Your task to perform on an android device: install app "Google Chrome" Image 0: 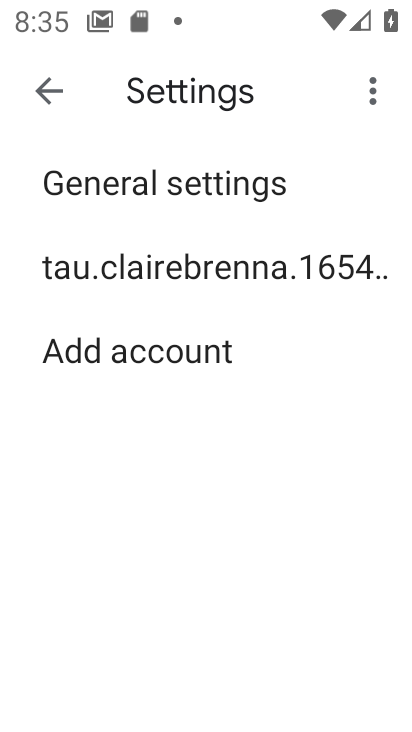
Step 0: press home button
Your task to perform on an android device: install app "Google Chrome" Image 1: 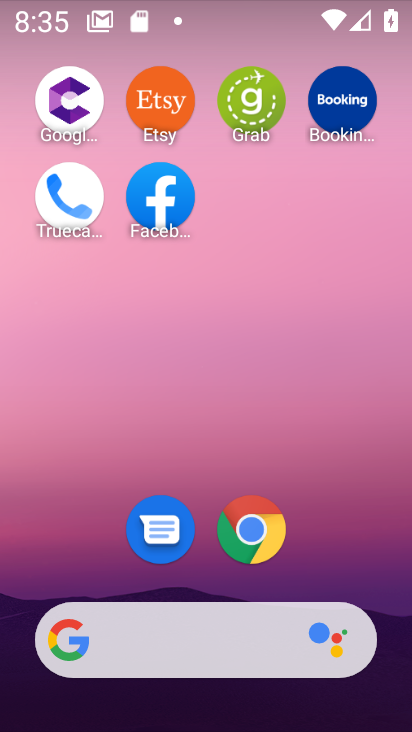
Step 1: drag from (206, 709) to (206, 78)
Your task to perform on an android device: install app "Google Chrome" Image 2: 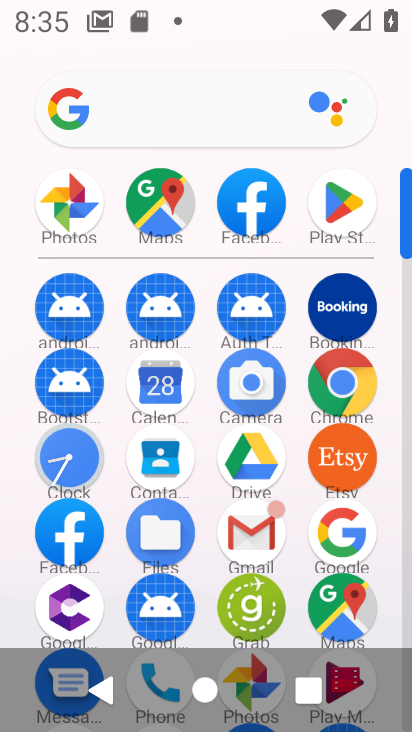
Step 2: click (334, 204)
Your task to perform on an android device: install app "Google Chrome" Image 3: 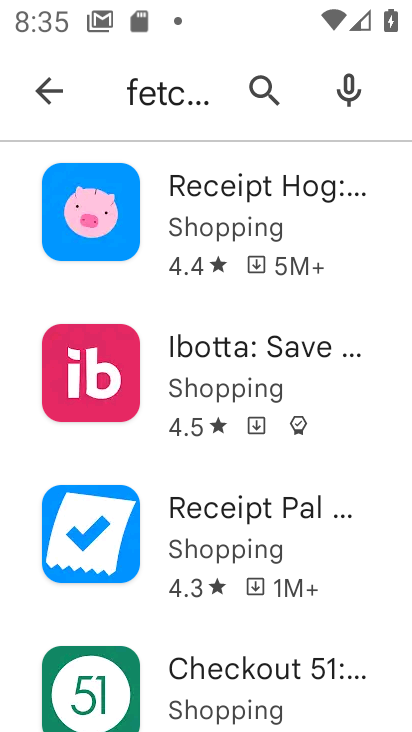
Step 3: click (257, 91)
Your task to perform on an android device: install app "Google Chrome" Image 4: 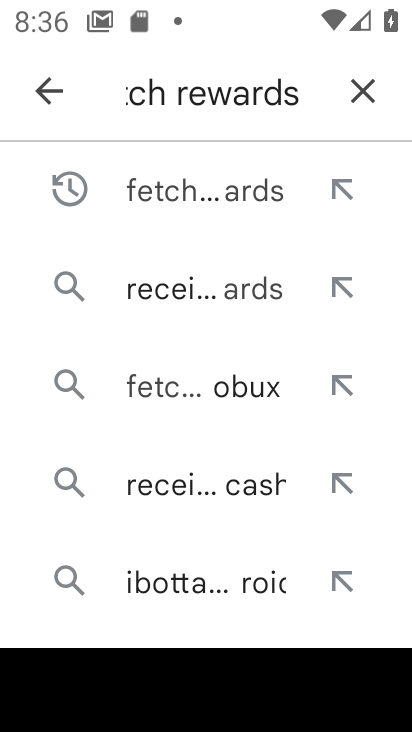
Step 4: click (361, 85)
Your task to perform on an android device: install app "Google Chrome" Image 5: 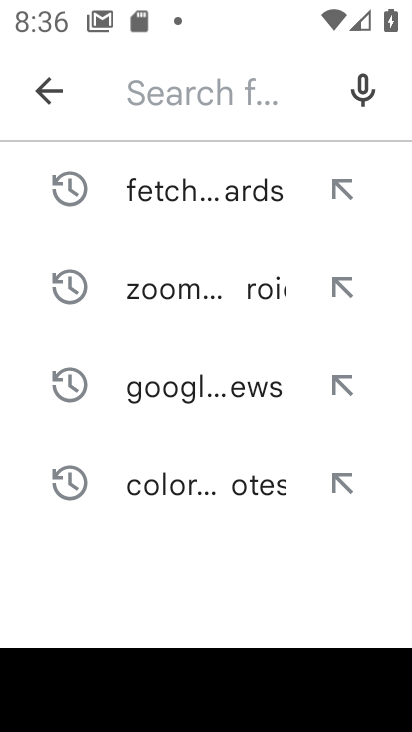
Step 5: type "Google Chrome"
Your task to perform on an android device: install app "Google Chrome" Image 6: 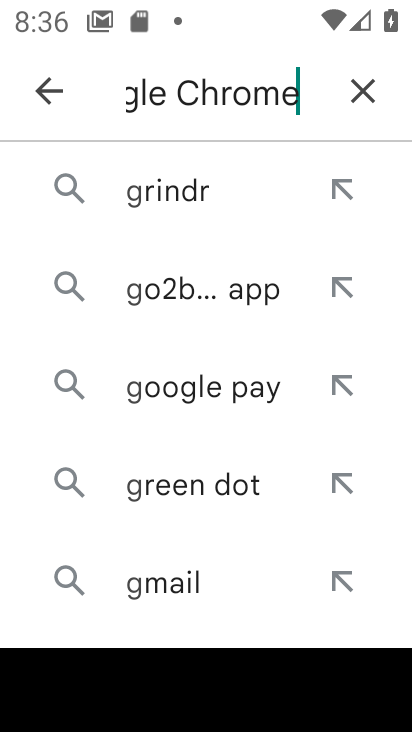
Step 6: type ""
Your task to perform on an android device: install app "Google Chrome" Image 7: 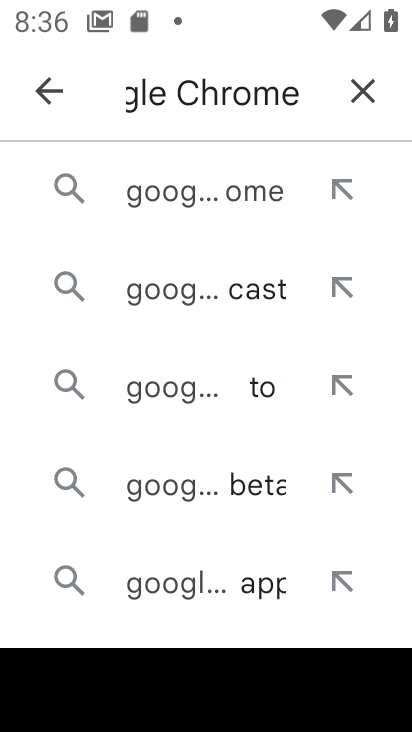
Step 7: click (157, 188)
Your task to perform on an android device: install app "Google Chrome" Image 8: 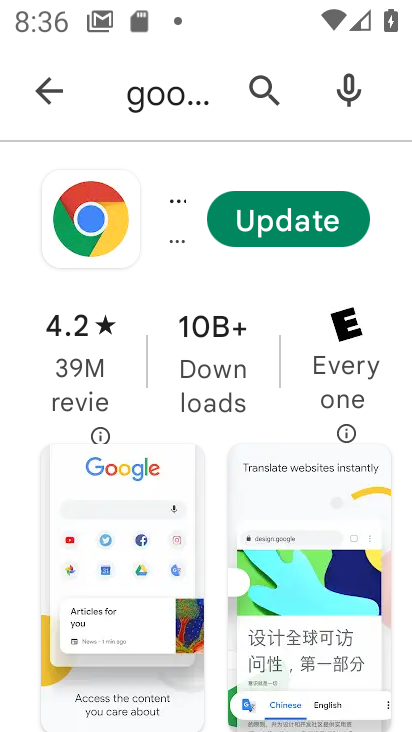
Step 8: click (173, 189)
Your task to perform on an android device: install app "Google Chrome" Image 9: 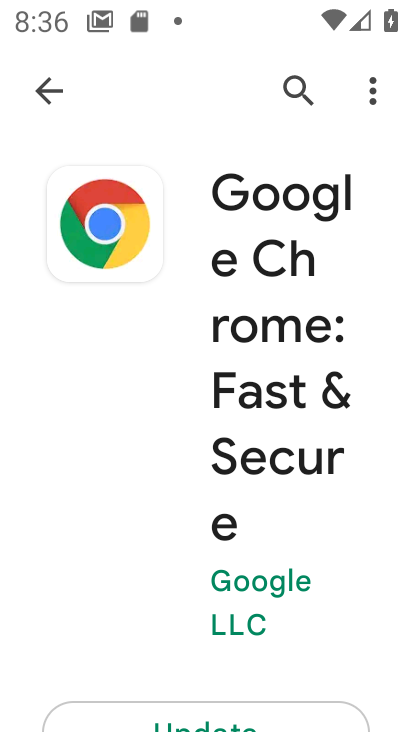
Step 9: task complete